Your task to perform on an android device: open a new tab in the chrome app Image 0: 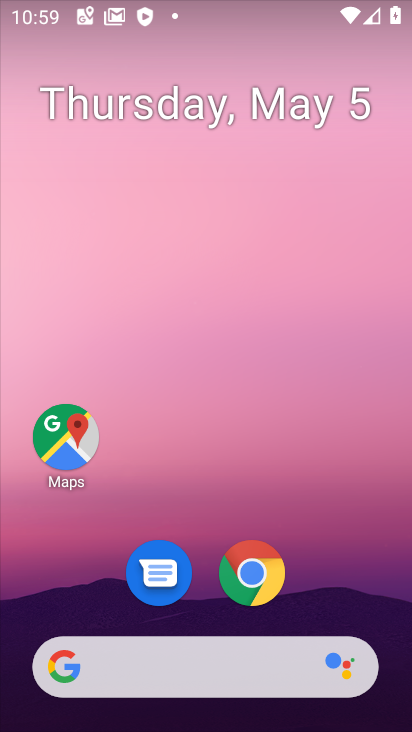
Step 0: drag from (315, 554) to (318, 311)
Your task to perform on an android device: open a new tab in the chrome app Image 1: 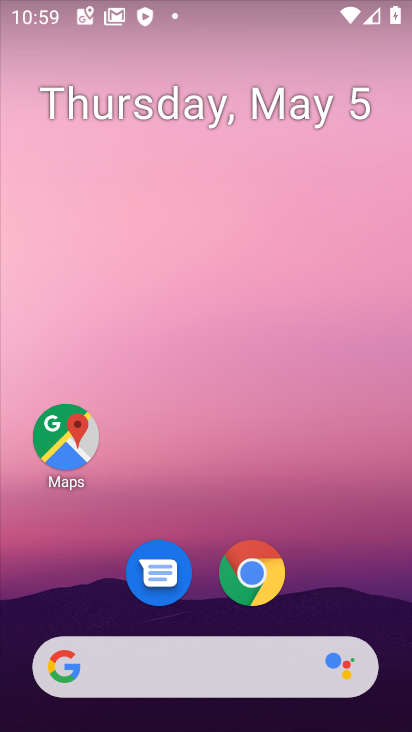
Step 1: drag from (323, 596) to (320, 220)
Your task to perform on an android device: open a new tab in the chrome app Image 2: 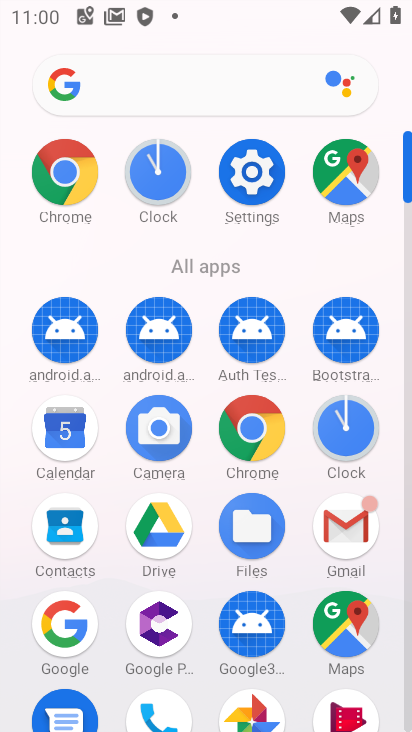
Step 2: click (249, 418)
Your task to perform on an android device: open a new tab in the chrome app Image 3: 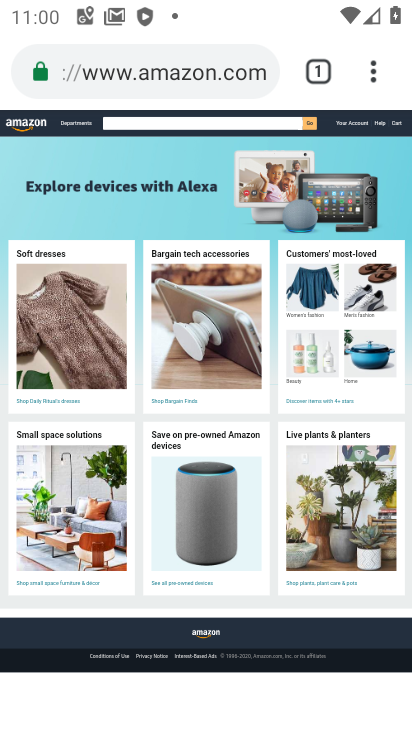
Step 3: click (362, 71)
Your task to perform on an android device: open a new tab in the chrome app Image 4: 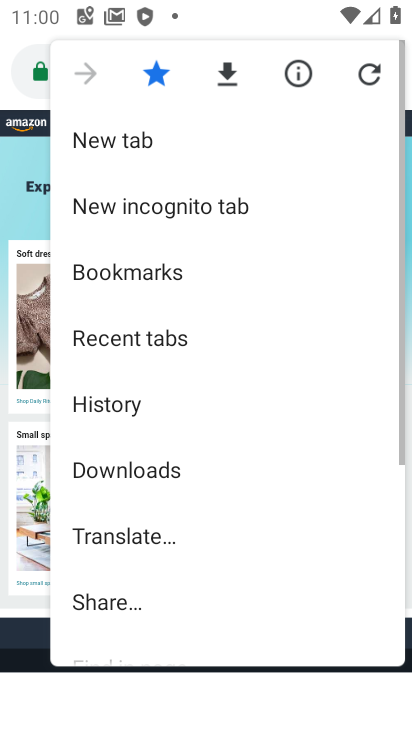
Step 4: click (153, 142)
Your task to perform on an android device: open a new tab in the chrome app Image 5: 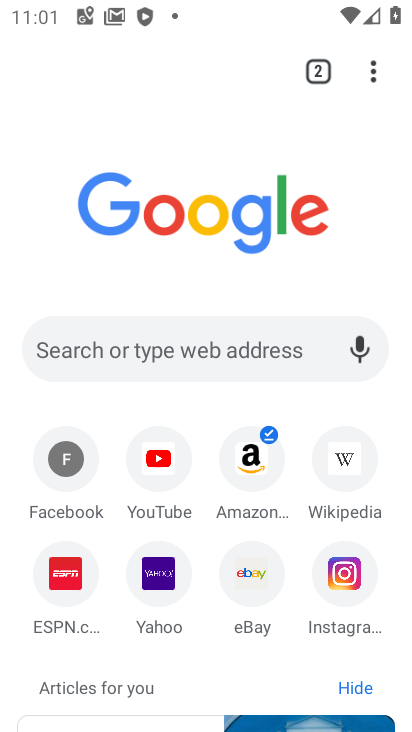
Step 5: task complete